Your task to perform on an android device: set the stopwatch Image 0: 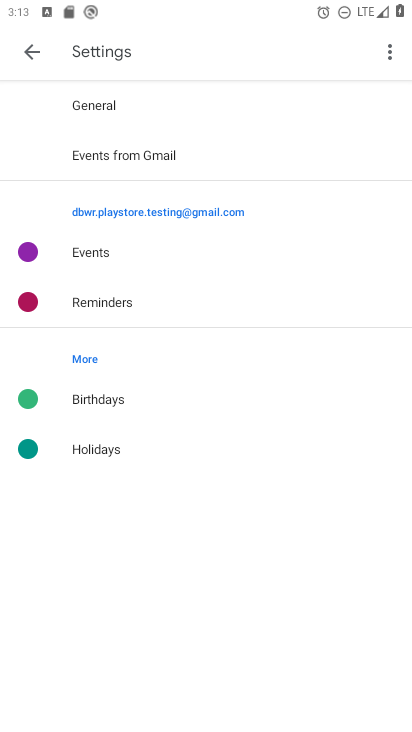
Step 0: press home button
Your task to perform on an android device: set the stopwatch Image 1: 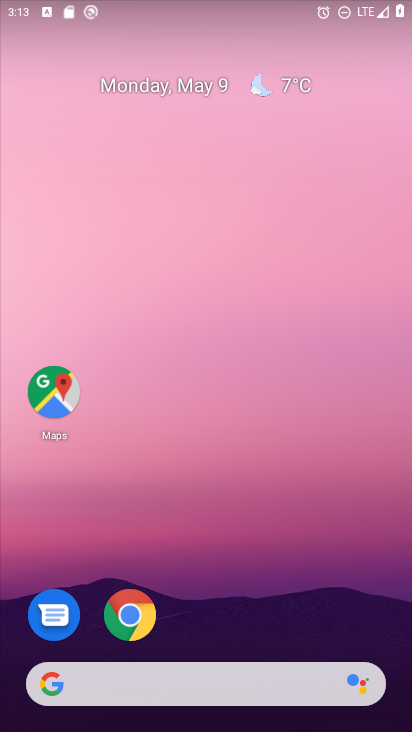
Step 1: drag from (307, 615) to (285, 178)
Your task to perform on an android device: set the stopwatch Image 2: 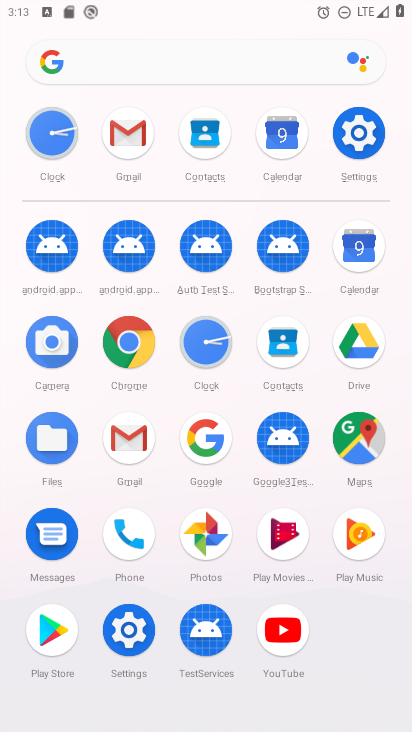
Step 2: click (202, 339)
Your task to perform on an android device: set the stopwatch Image 3: 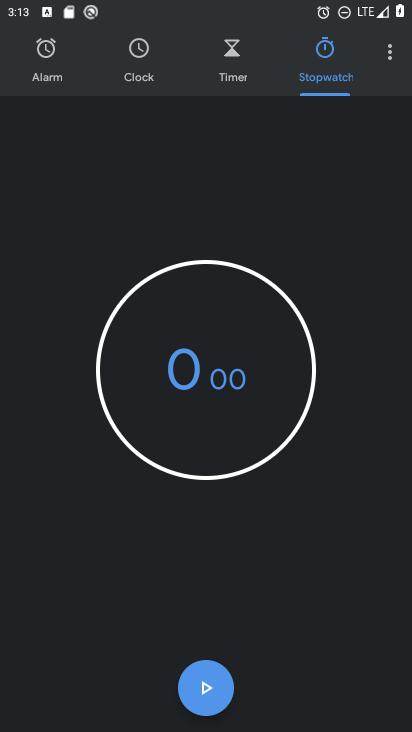
Step 3: task complete